Your task to perform on an android device: Go to Google maps Image 0: 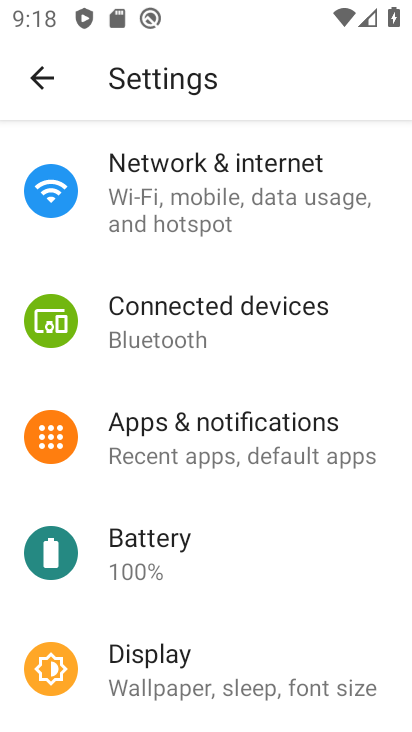
Step 0: press home button
Your task to perform on an android device: Go to Google maps Image 1: 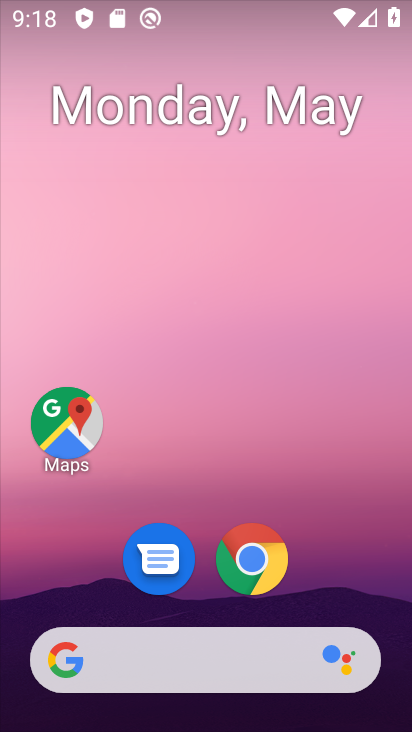
Step 1: click (32, 400)
Your task to perform on an android device: Go to Google maps Image 2: 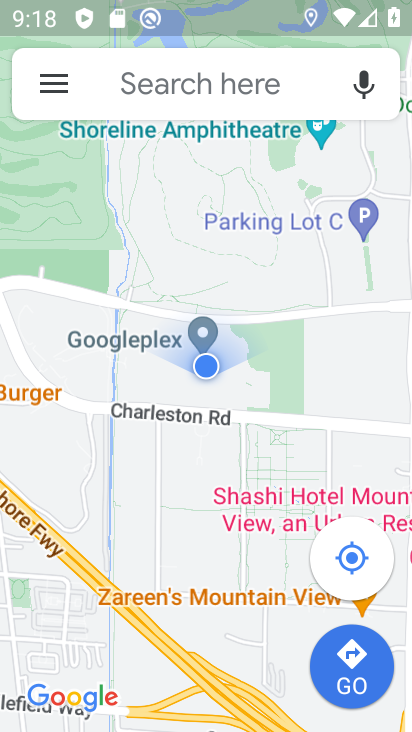
Step 2: task complete